Your task to perform on an android device: Open Youtube and go to the subscriptions tab Image 0: 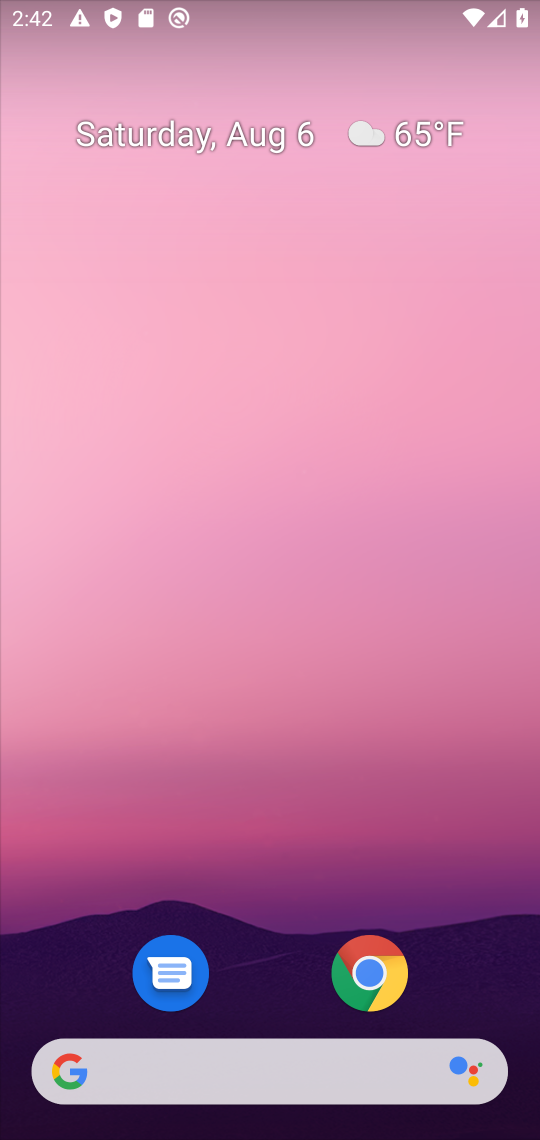
Step 0: drag from (262, 909) to (210, 45)
Your task to perform on an android device: Open Youtube and go to the subscriptions tab Image 1: 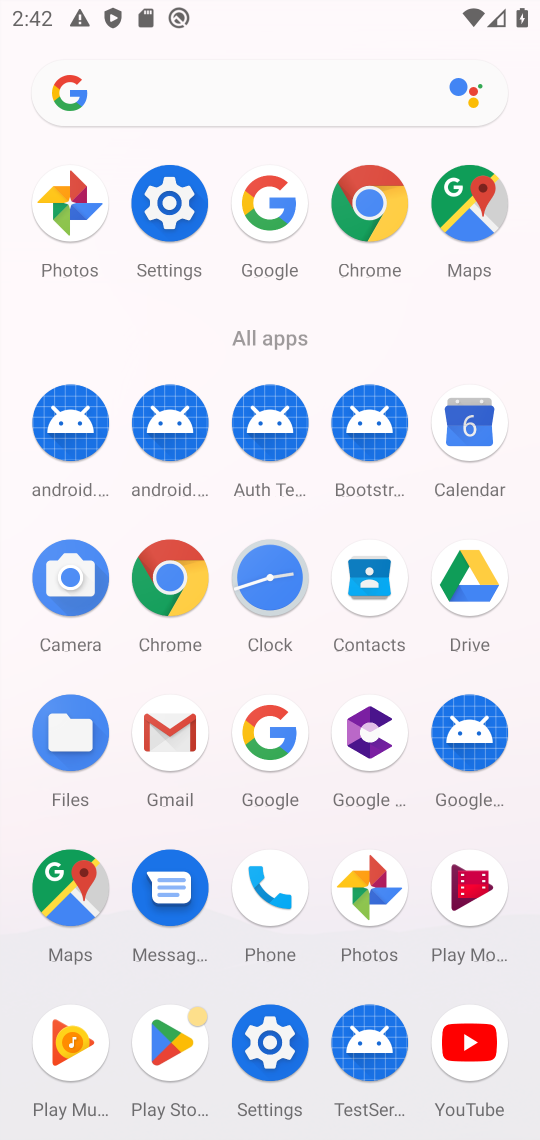
Step 1: click (473, 1053)
Your task to perform on an android device: Open Youtube and go to the subscriptions tab Image 2: 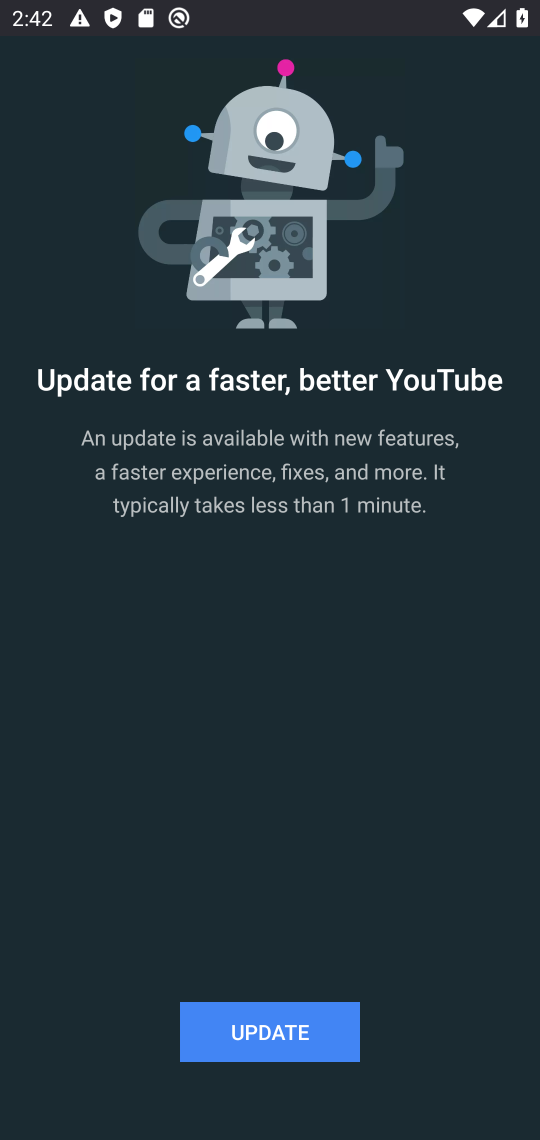
Step 2: click (311, 1025)
Your task to perform on an android device: Open Youtube and go to the subscriptions tab Image 3: 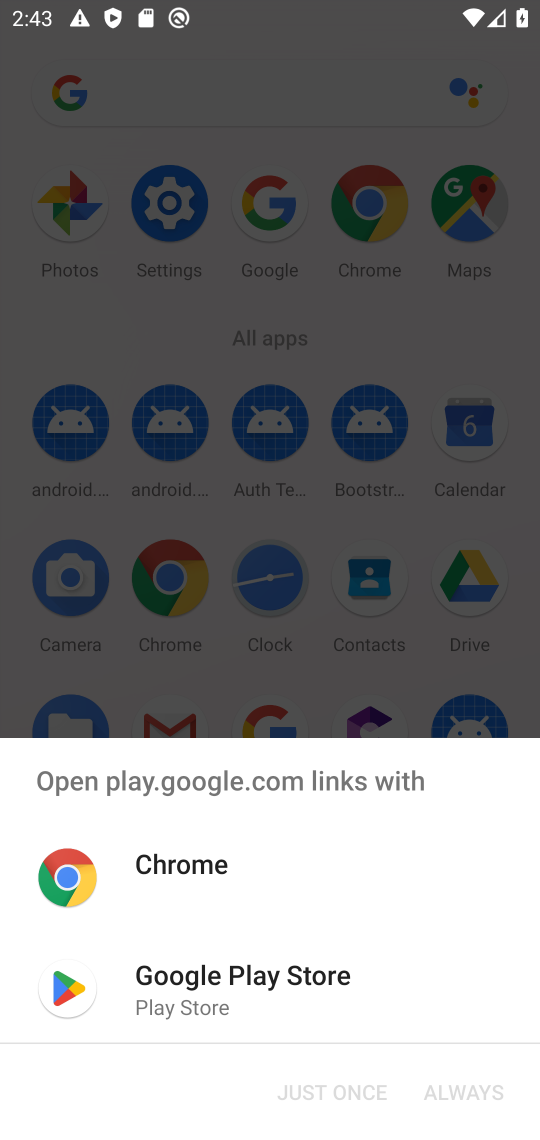
Step 3: click (214, 1001)
Your task to perform on an android device: Open Youtube and go to the subscriptions tab Image 4: 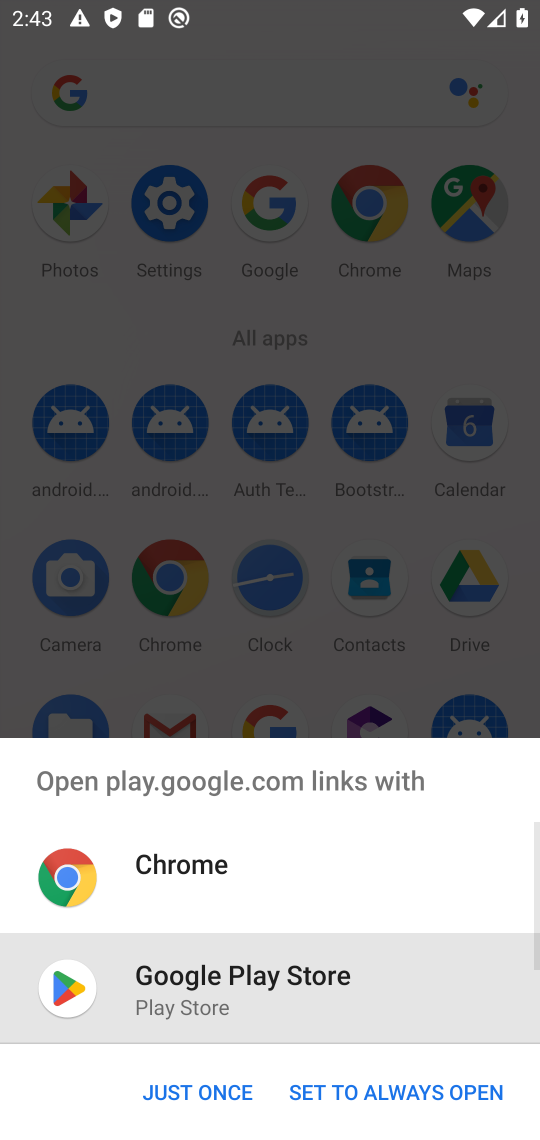
Step 4: click (216, 1100)
Your task to perform on an android device: Open Youtube and go to the subscriptions tab Image 5: 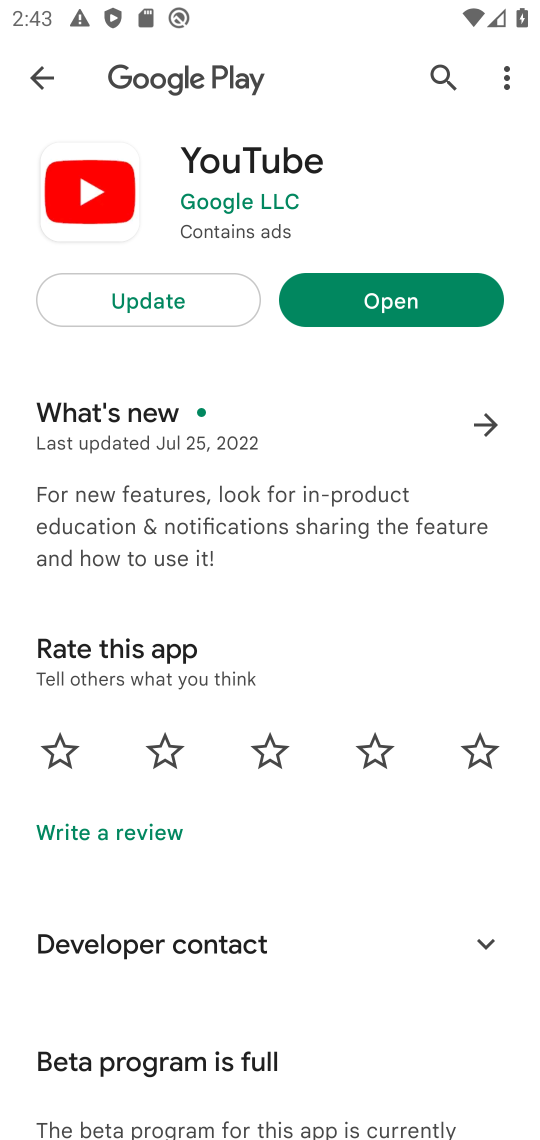
Step 5: click (155, 298)
Your task to perform on an android device: Open Youtube and go to the subscriptions tab Image 6: 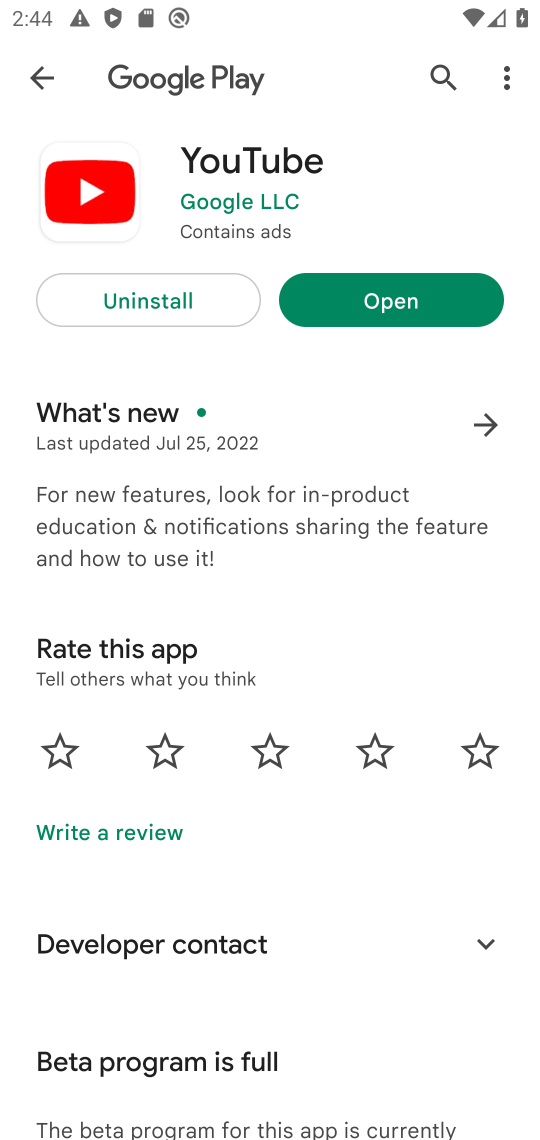
Step 6: click (376, 302)
Your task to perform on an android device: Open Youtube and go to the subscriptions tab Image 7: 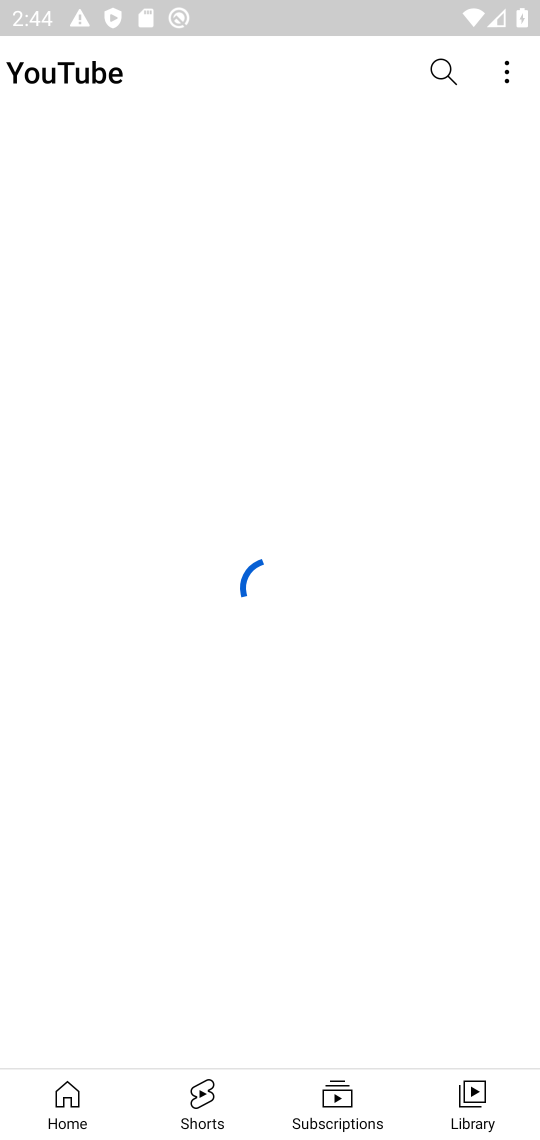
Step 7: click (326, 1080)
Your task to perform on an android device: Open Youtube and go to the subscriptions tab Image 8: 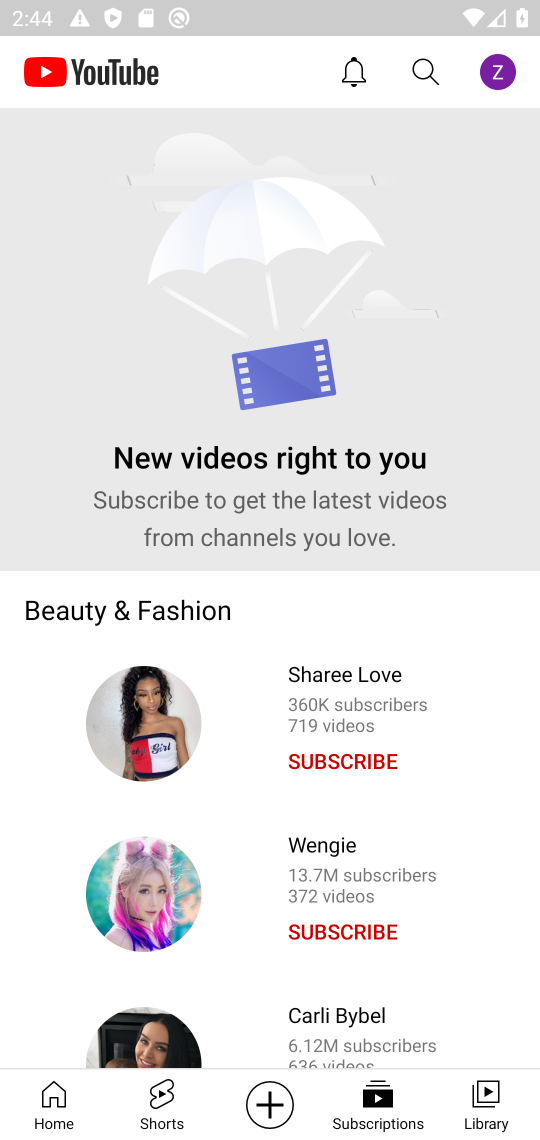
Step 8: task complete